Your task to perform on an android device: turn pop-ups off in chrome Image 0: 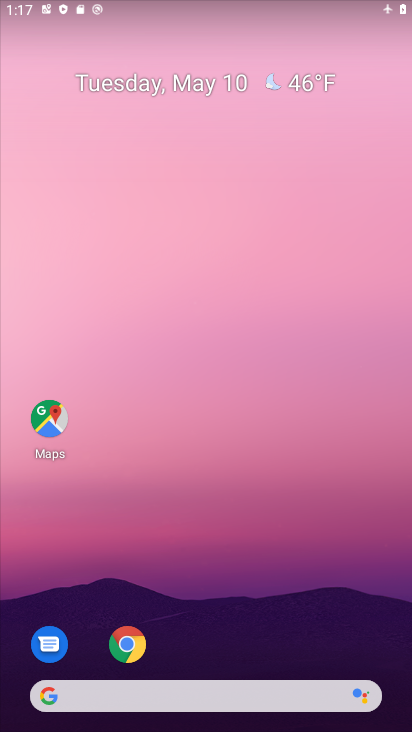
Step 0: drag from (227, 624) to (246, 281)
Your task to perform on an android device: turn pop-ups off in chrome Image 1: 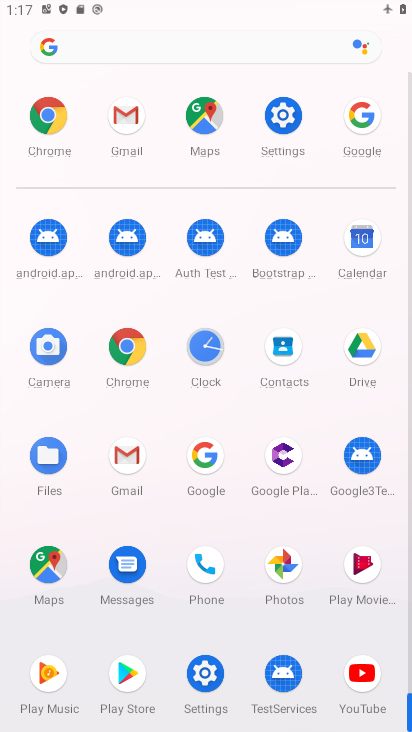
Step 1: click (138, 363)
Your task to perform on an android device: turn pop-ups off in chrome Image 2: 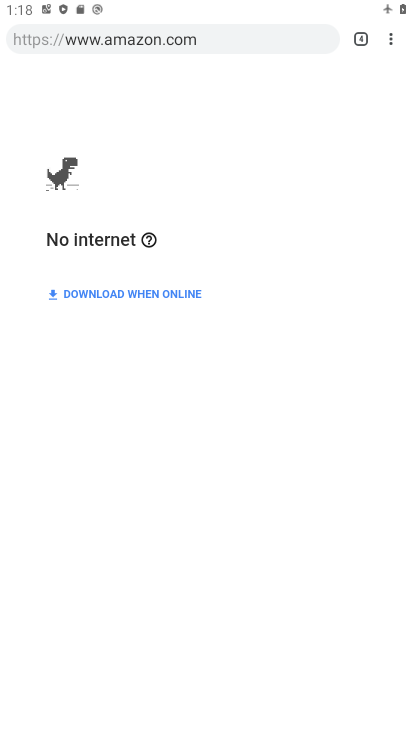
Step 2: click (389, 47)
Your task to perform on an android device: turn pop-ups off in chrome Image 3: 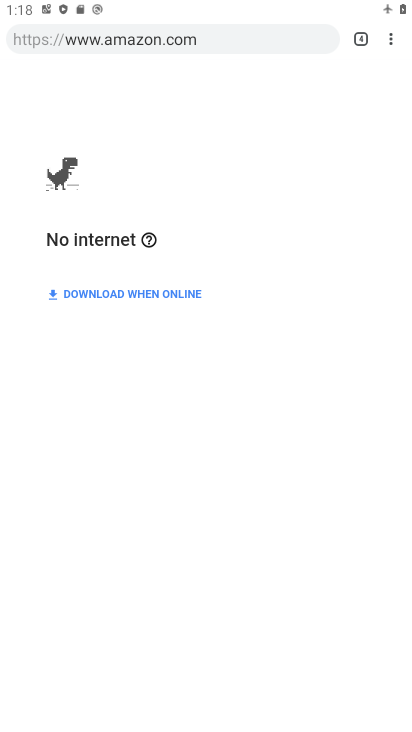
Step 3: click (394, 42)
Your task to perform on an android device: turn pop-ups off in chrome Image 4: 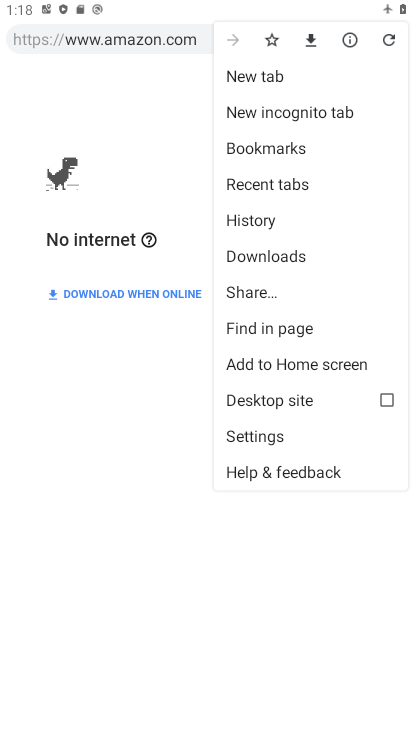
Step 4: click (285, 445)
Your task to perform on an android device: turn pop-ups off in chrome Image 5: 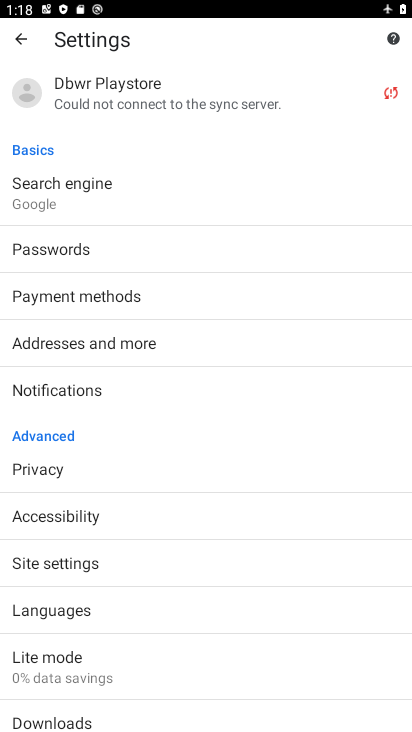
Step 5: click (109, 568)
Your task to perform on an android device: turn pop-ups off in chrome Image 6: 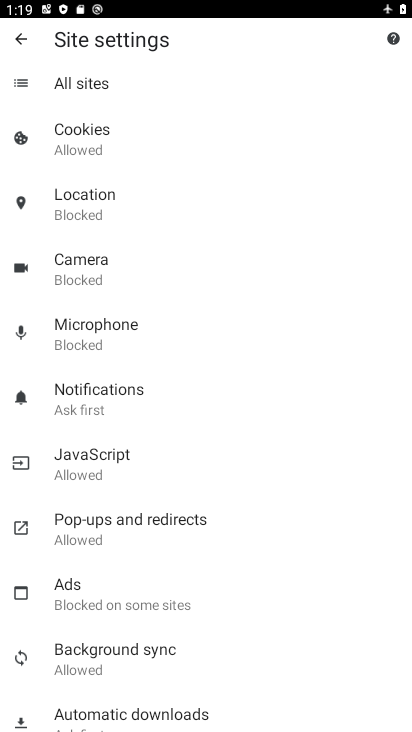
Step 6: click (138, 526)
Your task to perform on an android device: turn pop-ups off in chrome Image 7: 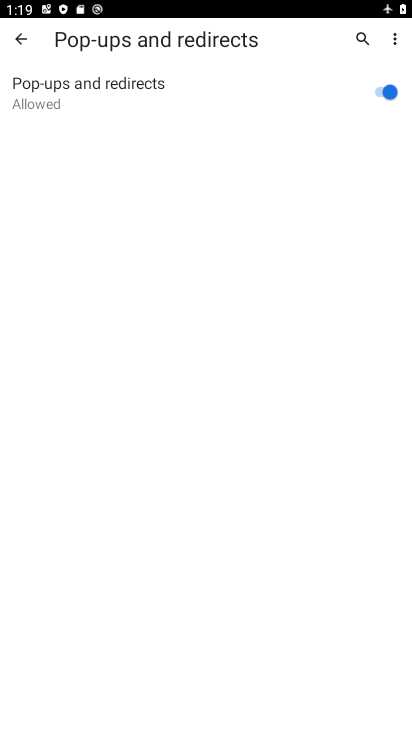
Step 7: click (395, 87)
Your task to perform on an android device: turn pop-ups off in chrome Image 8: 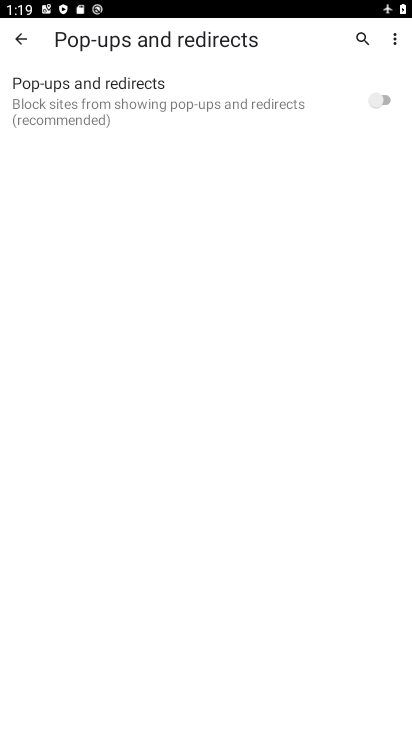
Step 8: task complete